Your task to perform on an android device: Go to sound settings Image 0: 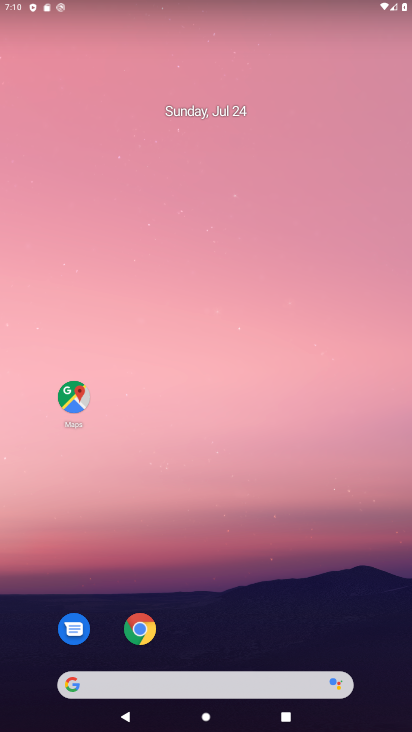
Step 0: drag from (312, 376) to (206, 20)
Your task to perform on an android device: Go to sound settings Image 1: 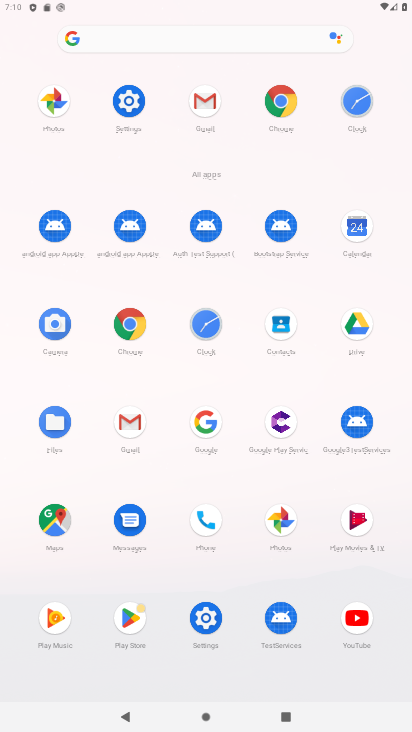
Step 1: click (200, 608)
Your task to perform on an android device: Go to sound settings Image 2: 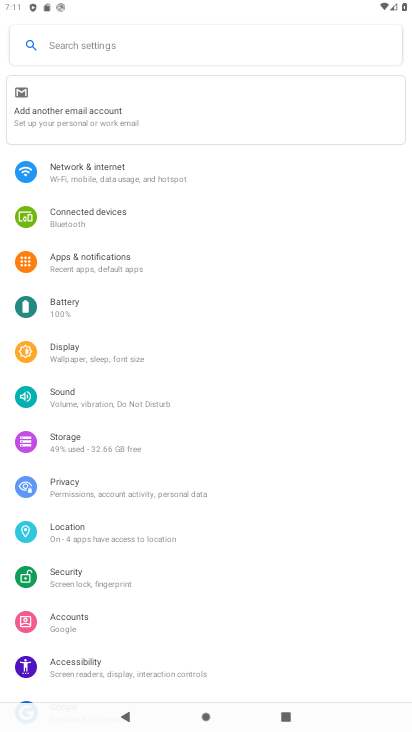
Step 2: click (87, 400)
Your task to perform on an android device: Go to sound settings Image 3: 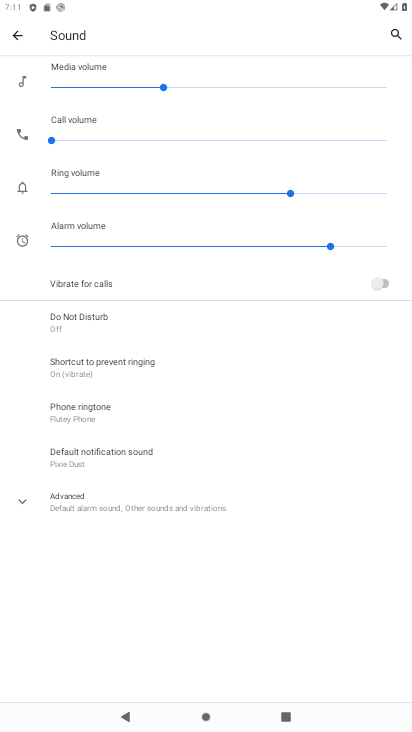
Step 3: task complete